Your task to perform on an android device: install app "Duolingo: language lessons" Image 0: 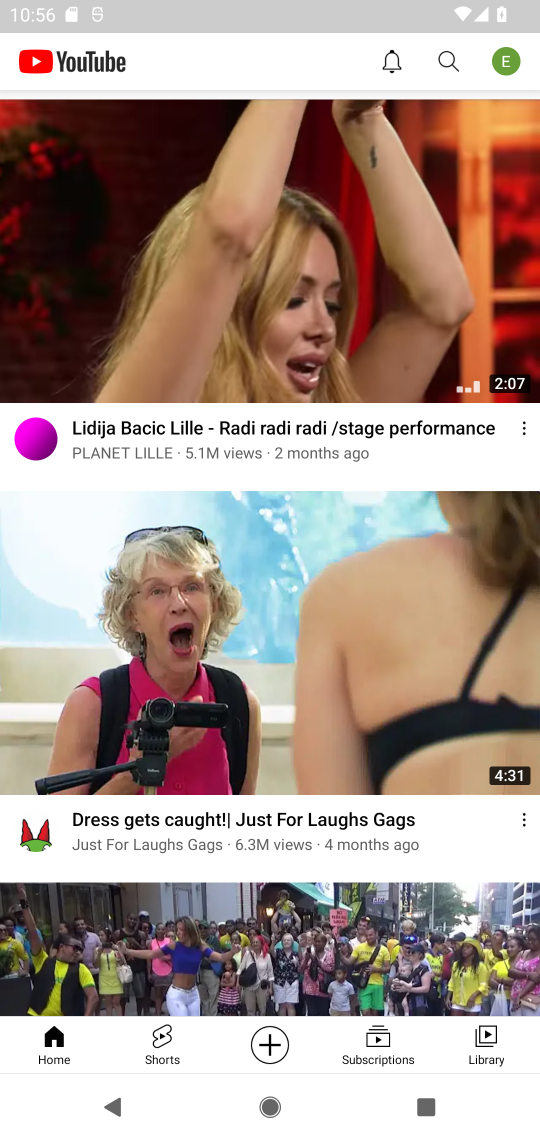
Step 0: press home button
Your task to perform on an android device: install app "Duolingo: language lessons" Image 1: 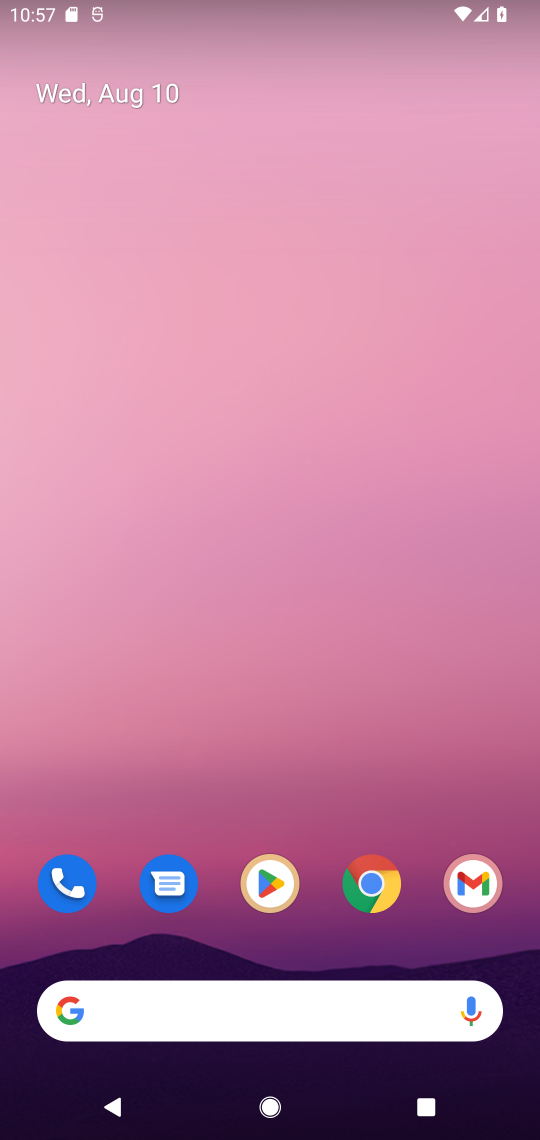
Step 1: click (272, 883)
Your task to perform on an android device: install app "Duolingo: language lessons" Image 2: 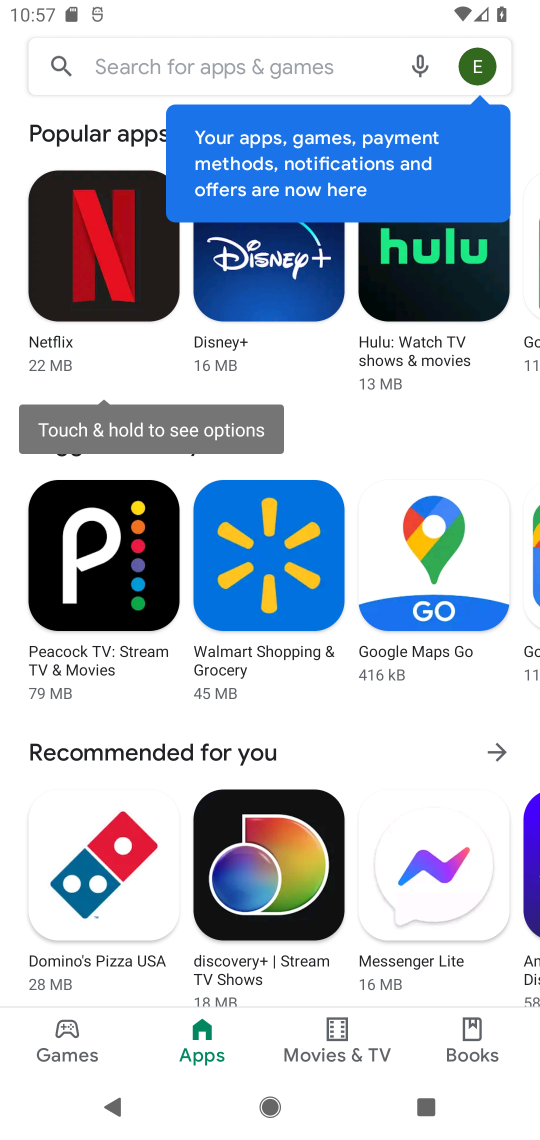
Step 2: click (216, 69)
Your task to perform on an android device: install app "Duolingo: language lessons" Image 3: 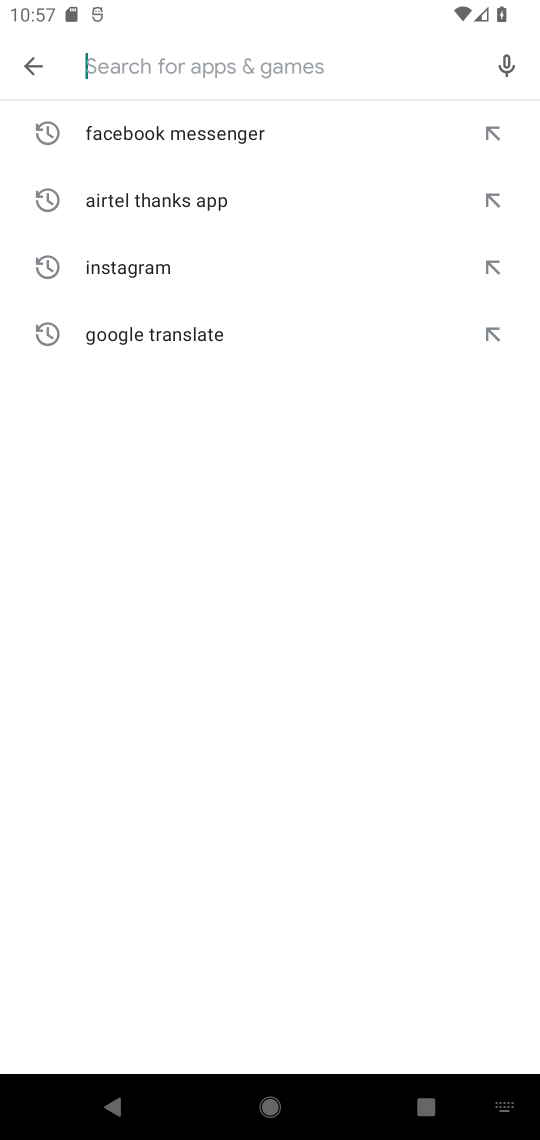
Step 3: type "Duolingo: language lessons"
Your task to perform on an android device: install app "Duolingo: language lessons" Image 4: 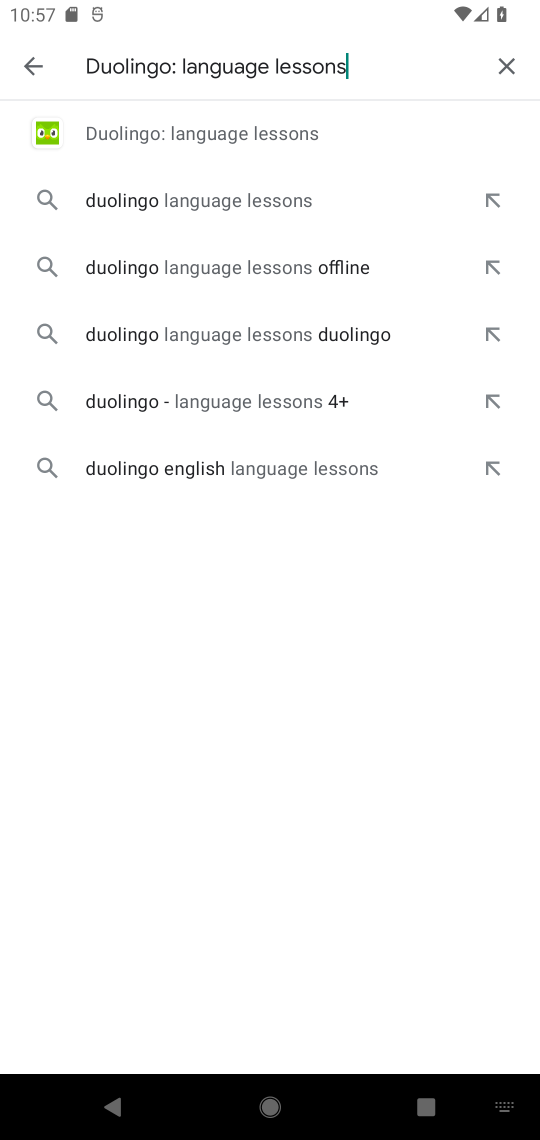
Step 4: click (219, 137)
Your task to perform on an android device: install app "Duolingo: language lessons" Image 5: 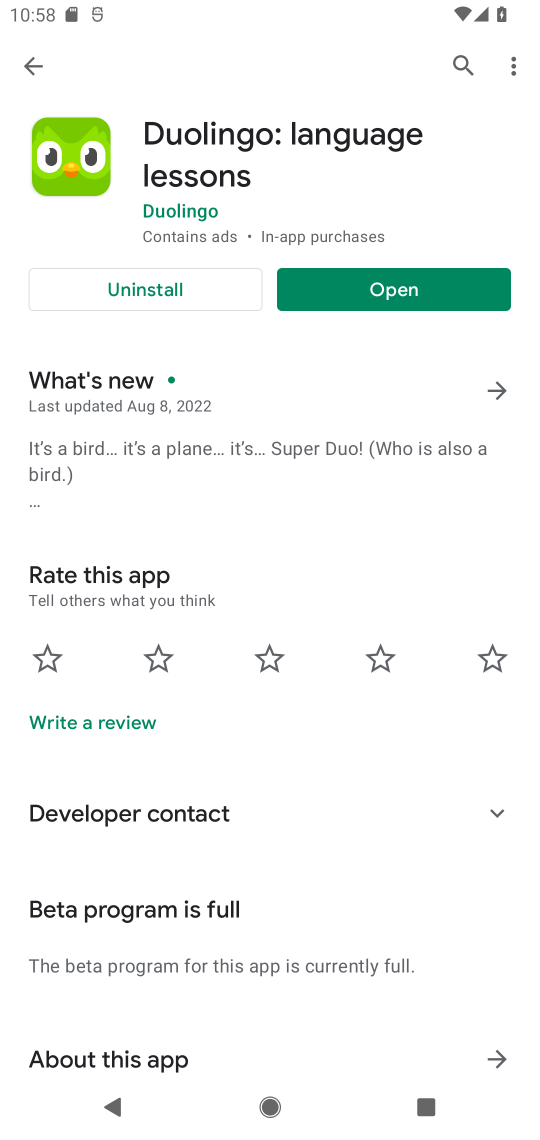
Step 5: task complete